Your task to perform on an android device: turn off sleep mode Image 0: 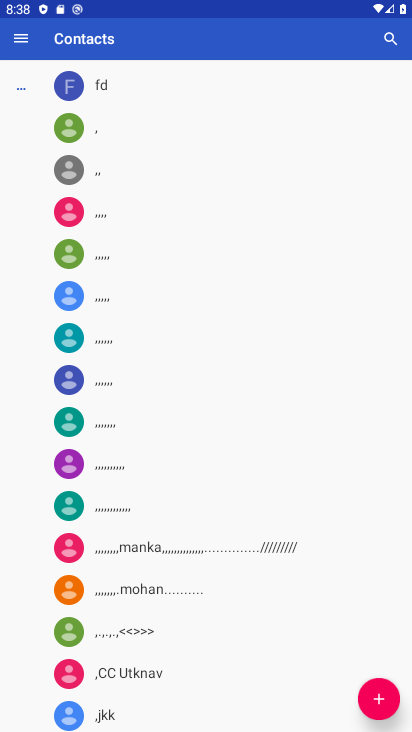
Step 0: drag from (323, 697) to (357, 316)
Your task to perform on an android device: turn off sleep mode Image 1: 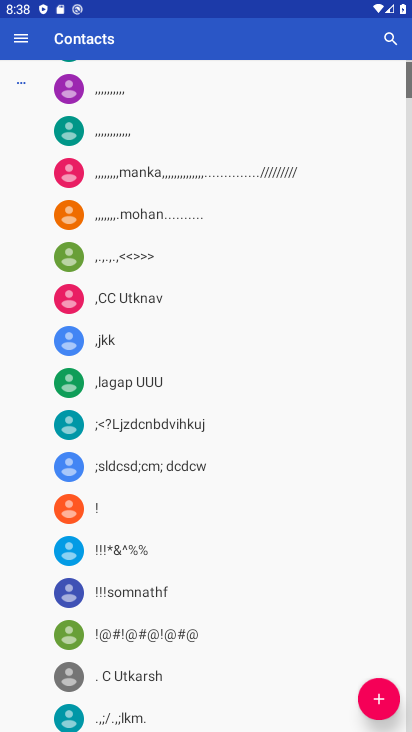
Step 1: press home button
Your task to perform on an android device: turn off sleep mode Image 2: 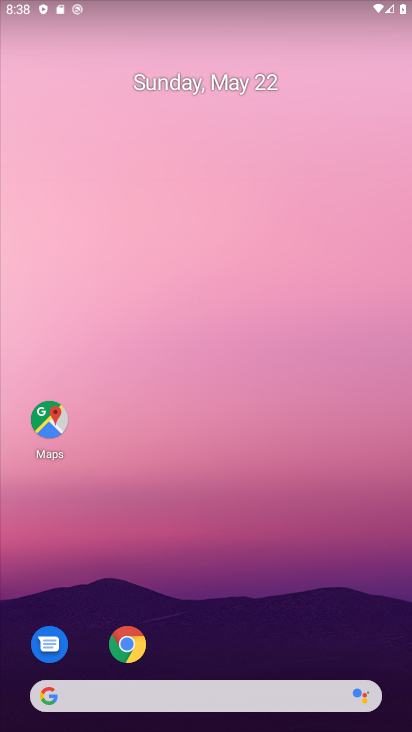
Step 2: drag from (219, 708) to (214, 333)
Your task to perform on an android device: turn off sleep mode Image 3: 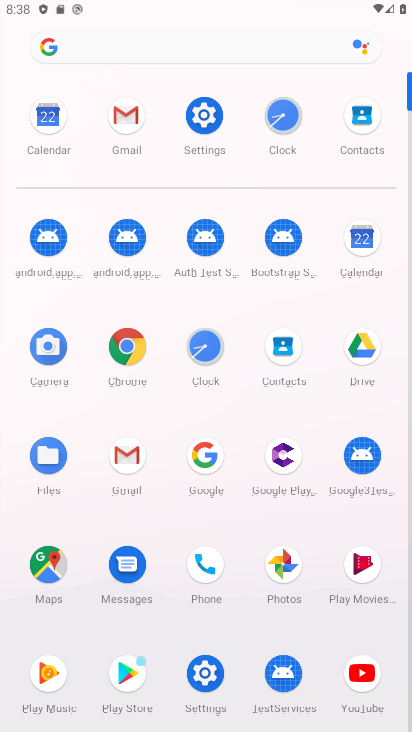
Step 3: click (202, 664)
Your task to perform on an android device: turn off sleep mode Image 4: 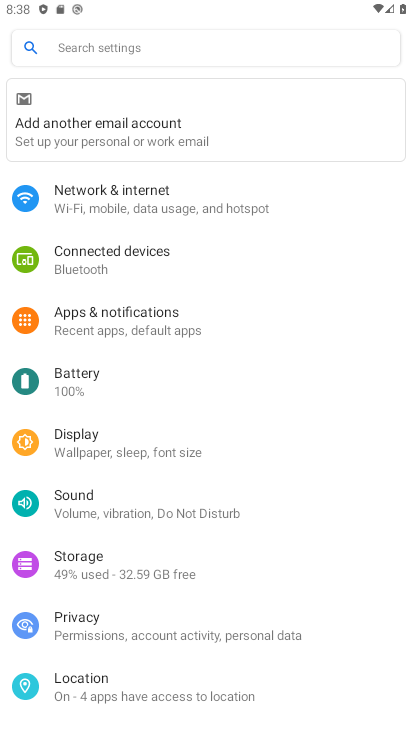
Step 4: click (124, 445)
Your task to perform on an android device: turn off sleep mode Image 5: 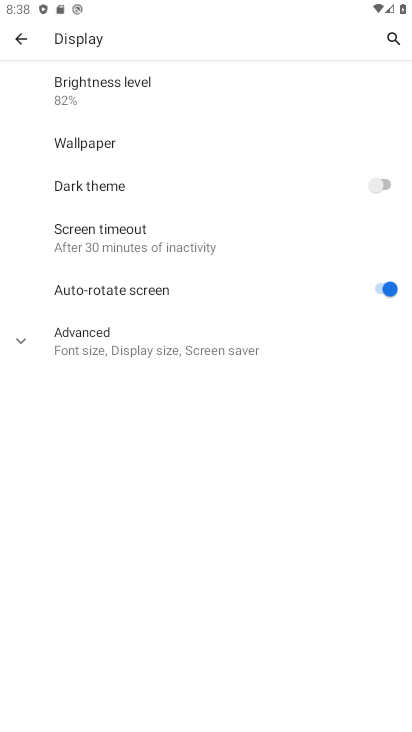
Step 5: click (161, 360)
Your task to perform on an android device: turn off sleep mode Image 6: 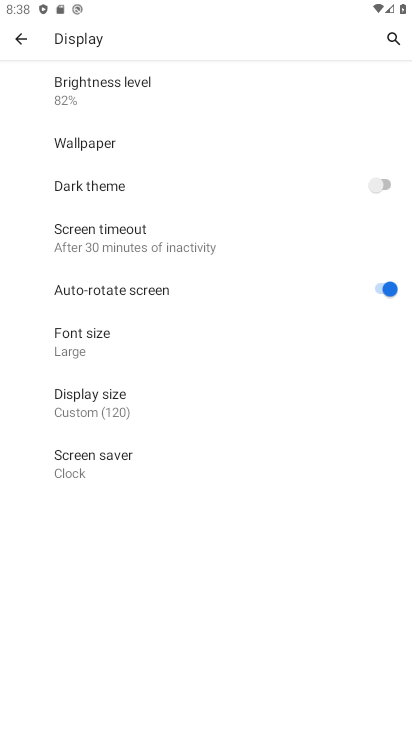
Step 6: task complete